Your task to perform on an android device: turn on sleep mode Image 0: 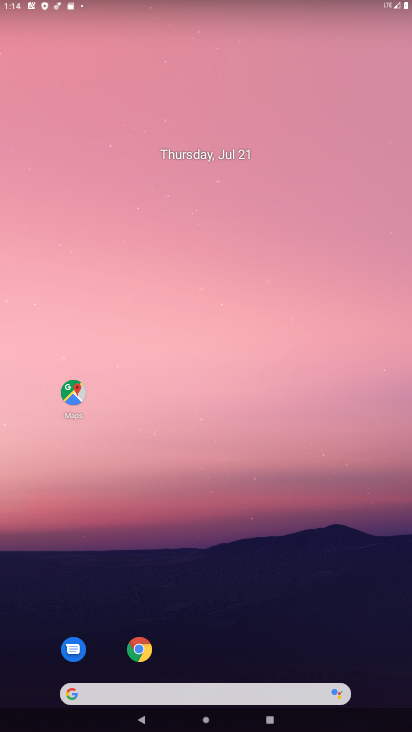
Step 0: press home button
Your task to perform on an android device: turn on sleep mode Image 1: 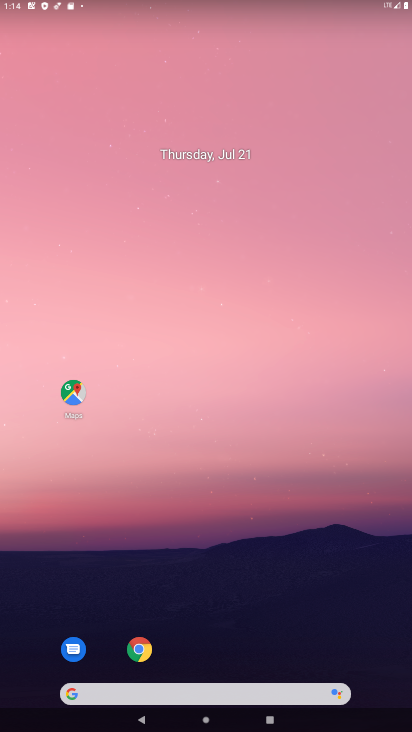
Step 1: drag from (231, 725) to (231, 252)
Your task to perform on an android device: turn on sleep mode Image 2: 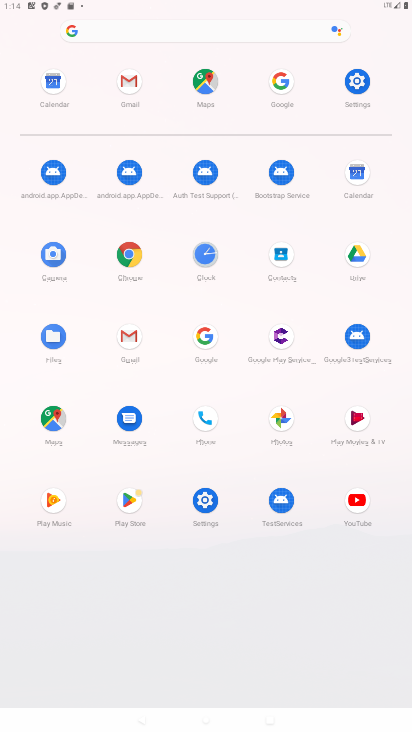
Step 2: click (361, 77)
Your task to perform on an android device: turn on sleep mode Image 3: 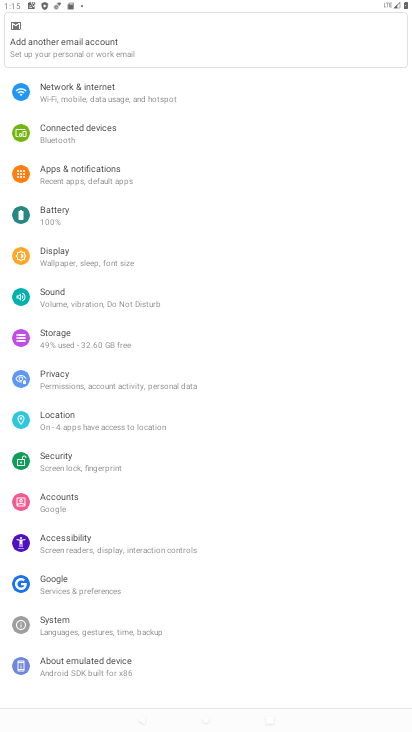
Step 3: click (58, 254)
Your task to perform on an android device: turn on sleep mode Image 4: 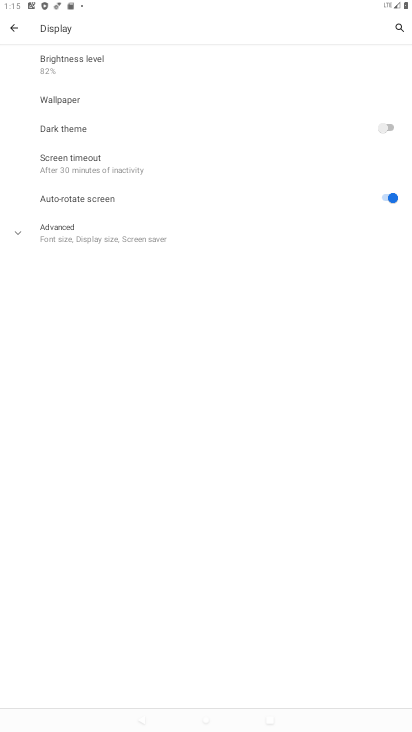
Step 4: click (70, 236)
Your task to perform on an android device: turn on sleep mode Image 5: 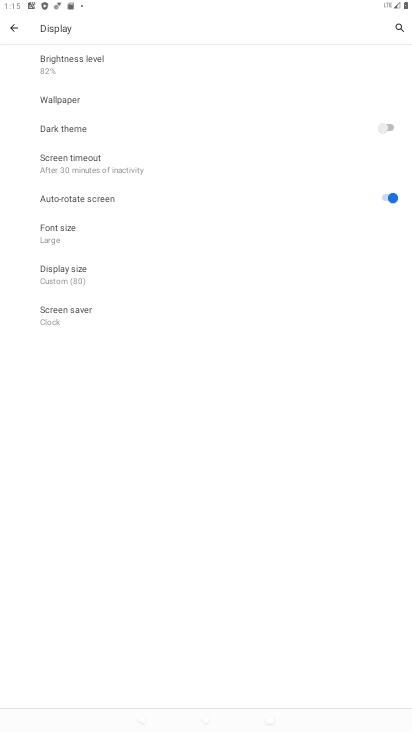
Step 5: task complete